Your task to perform on an android device: read, delete, or share a saved page in the chrome app Image 0: 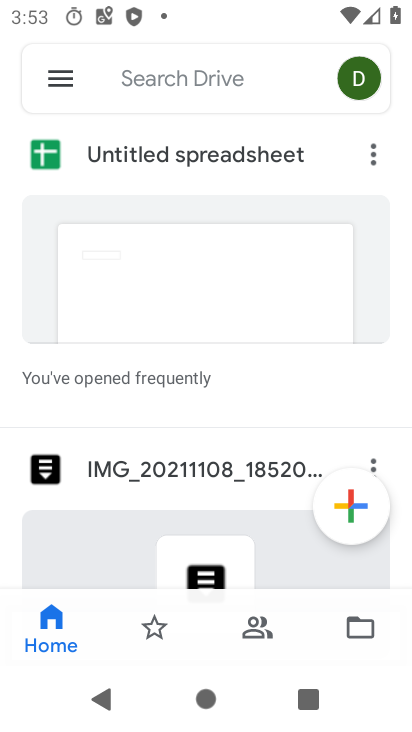
Step 0: press home button
Your task to perform on an android device: read, delete, or share a saved page in the chrome app Image 1: 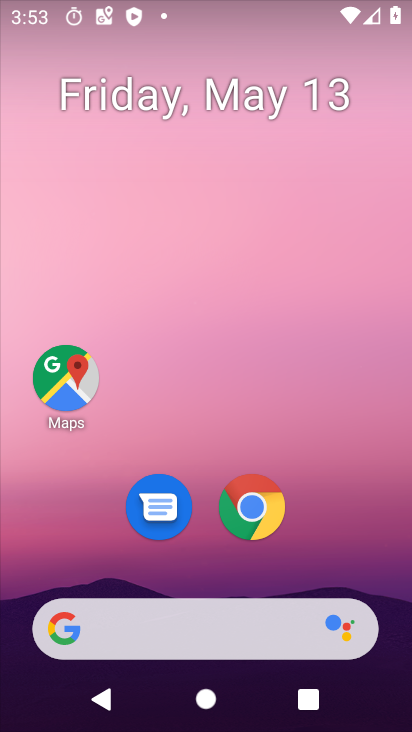
Step 1: click (237, 505)
Your task to perform on an android device: read, delete, or share a saved page in the chrome app Image 2: 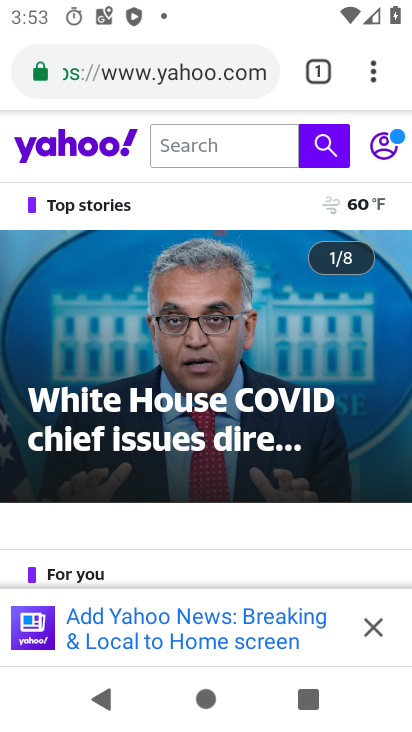
Step 2: click (371, 79)
Your task to perform on an android device: read, delete, or share a saved page in the chrome app Image 3: 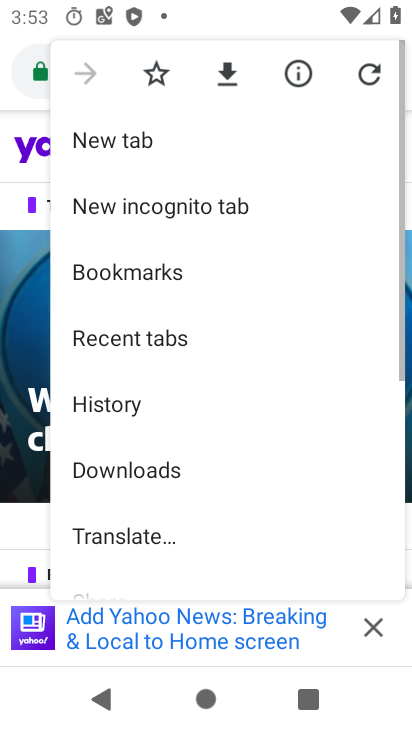
Step 3: drag from (137, 428) to (162, 161)
Your task to perform on an android device: read, delete, or share a saved page in the chrome app Image 4: 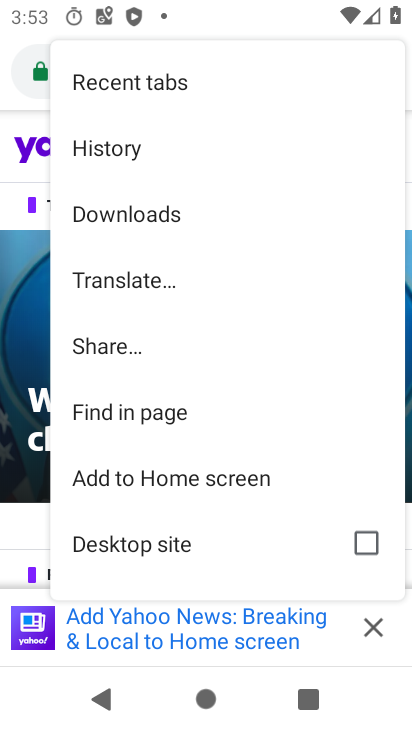
Step 4: click (236, 214)
Your task to perform on an android device: read, delete, or share a saved page in the chrome app Image 5: 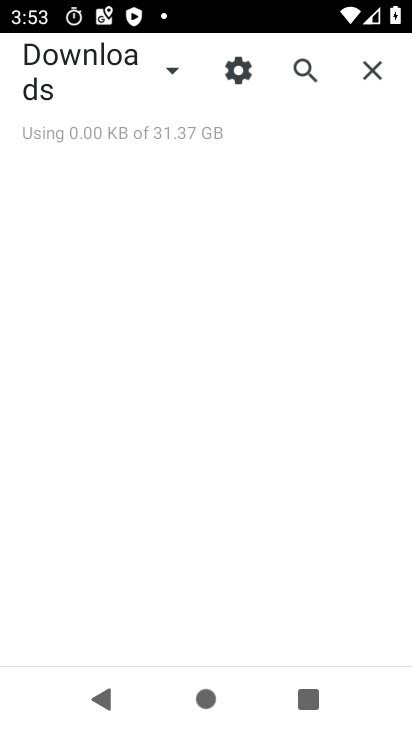
Step 5: task complete